Your task to perform on an android device: Clear the shopping cart on target. Search for razer naga on target, select the first entry, add it to the cart, then select checkout. Image 0: 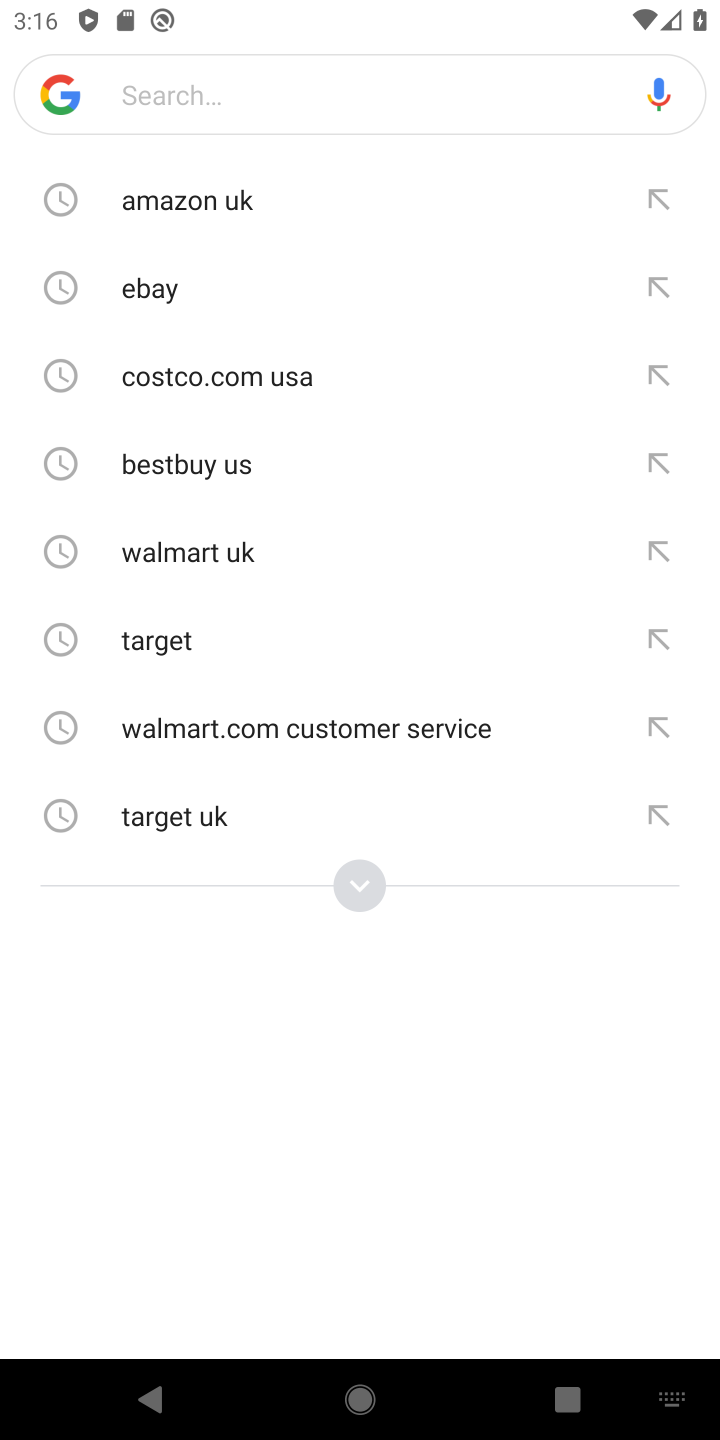
Step 0: press home button
Your task to perform on an android device: Clear the shopping cart on target. Search for razer naga on target, select the first entry, add it to the cart, then select checkout. Image 1: 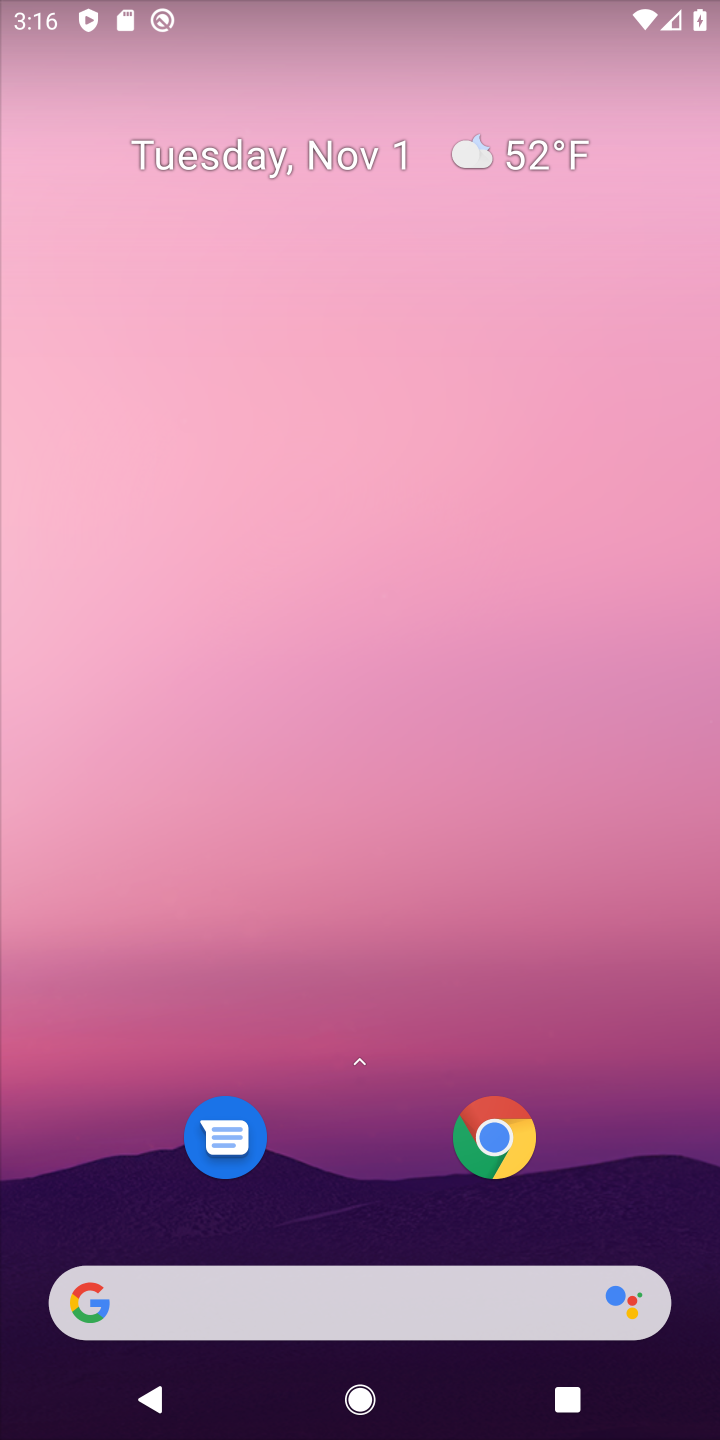
Step 1: click (397, 1319)
Your task to perform on an android device: Clear the shopping cart on target. Search for razer naga on target, select the first entry, add it to the cart, then select checkout. Image 2: 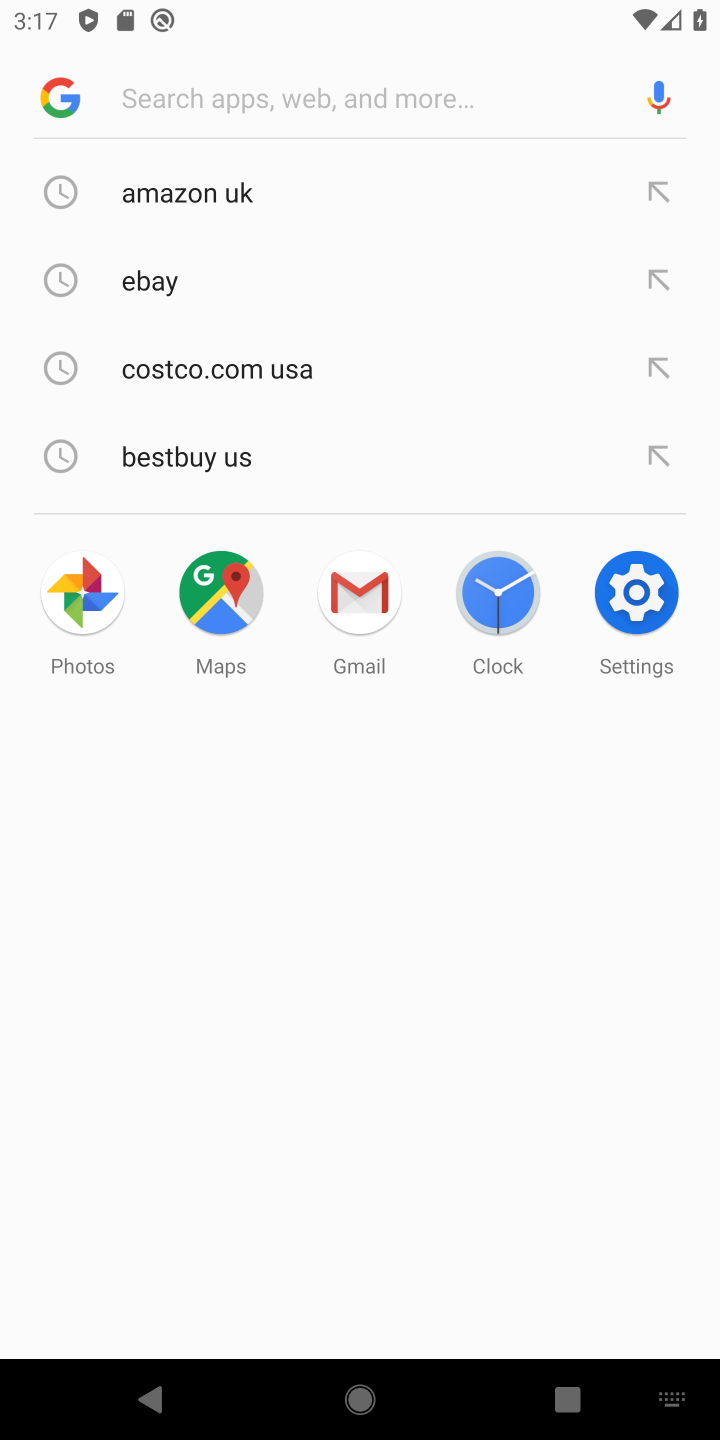
Step 2: click (362, 211)
Your task to perform on an android device: Clear the shopping cart on target. Search for razer naga on target, select the first entry, add it to the cart, then select checkout. Image 3: 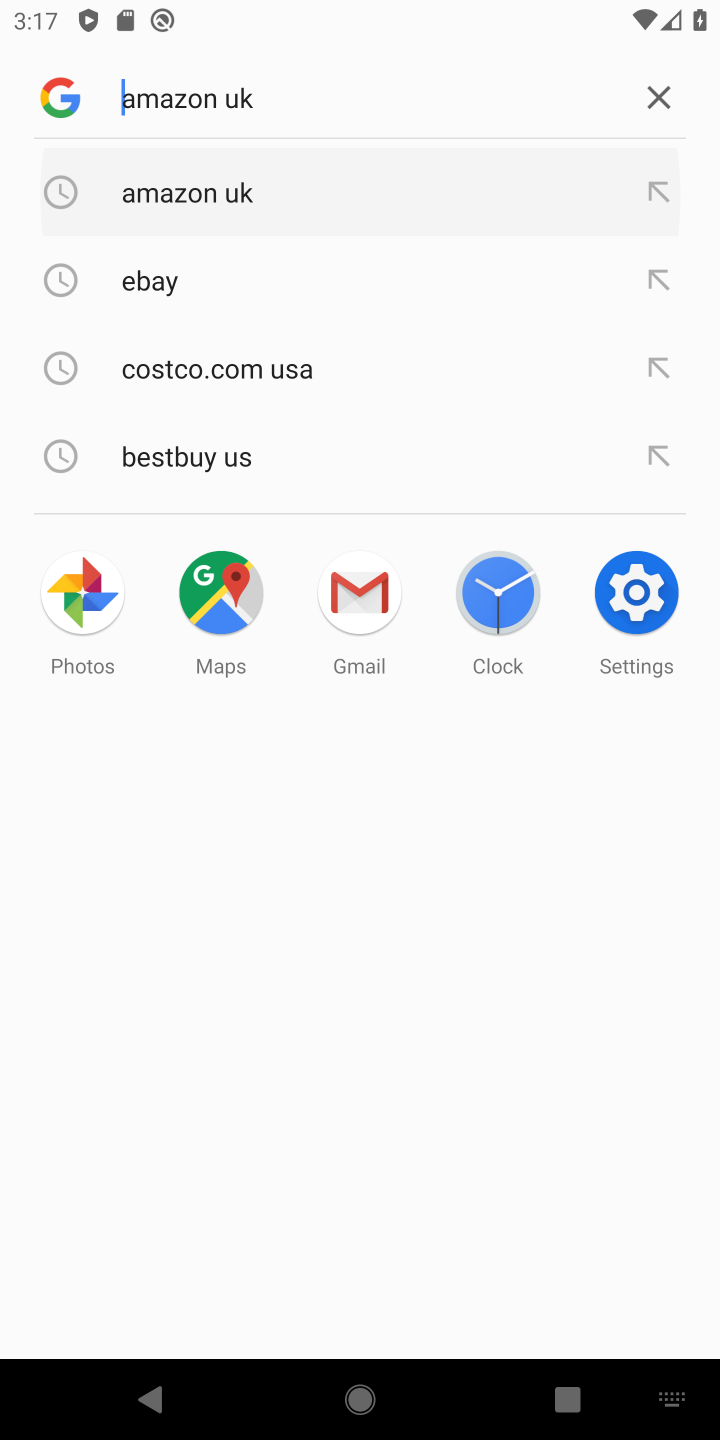
Step 3: task complete